Your task to perform on an android device: Show me recent news Image 0: 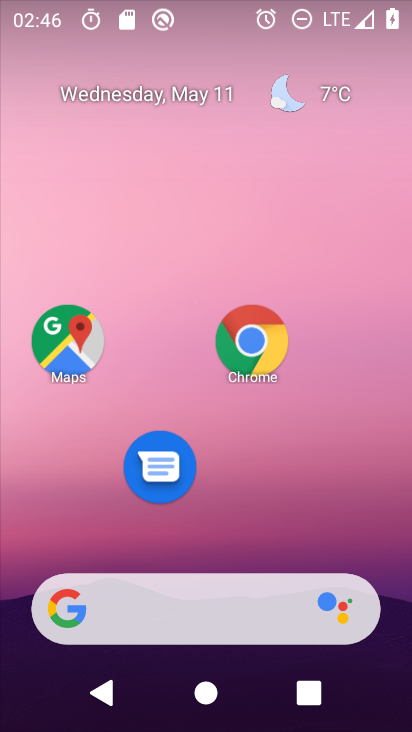
Step 0: click (75, 612)
Your task to perform on an android device: Show me recent news Image 1: 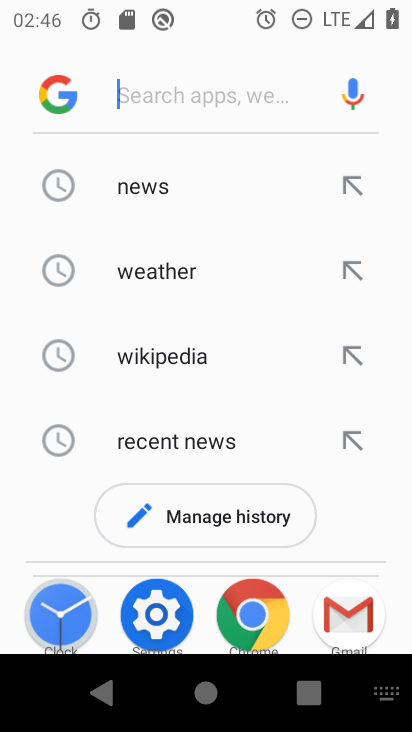
Step 1: click (136, 445)
Your task to perform on an android device: Show me recent news Image 2: 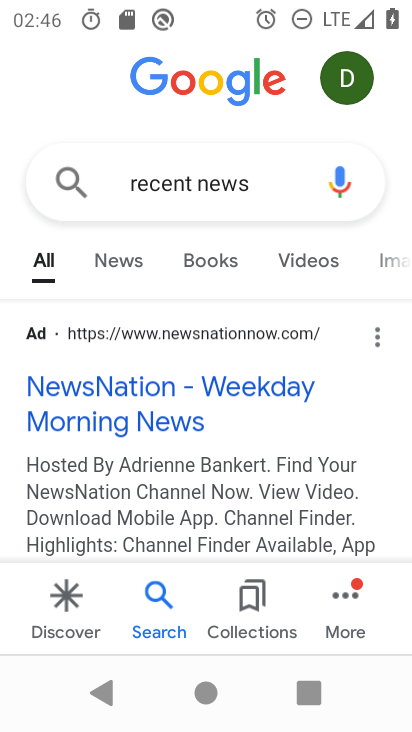
Step 2: click (129, 262)
Your task to perform on an android device: Show me recent news Image 3: 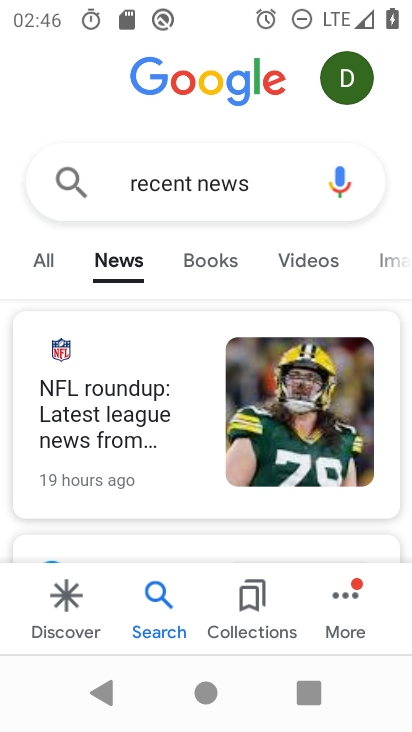
Step 3: task complete